Your task to perform on an android device: Open display settings Image 0: 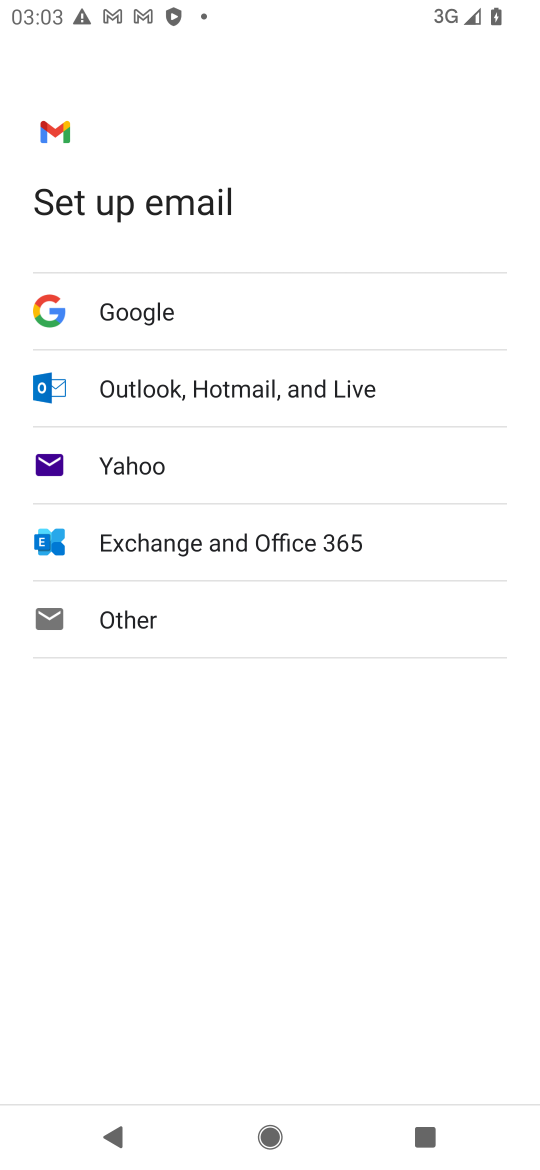
Step 0: press home button
Your task to perform on an android device: Open display settings Image 1: 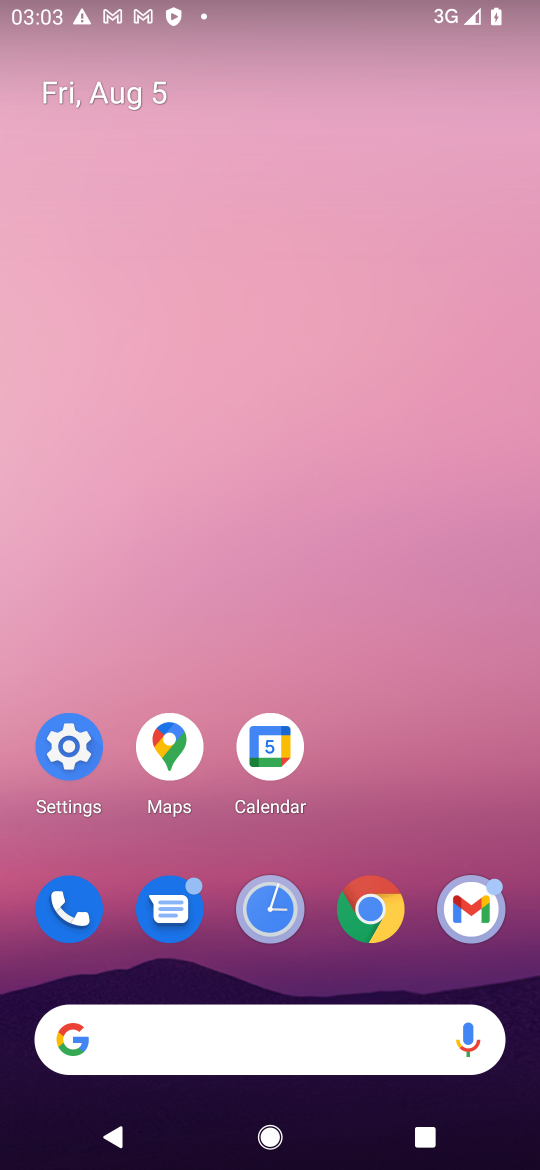
Step 1: click (72, 745)
Your task to perform on an android device: Open display settings Image 2: 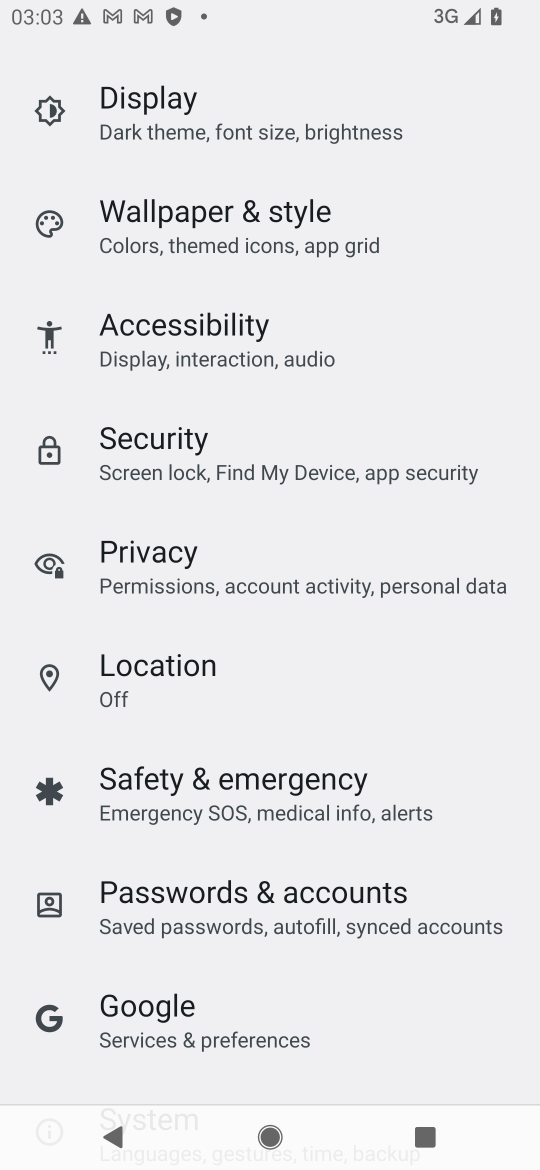
Step 2: click (158, 95)
Your task to perform on an android device: Open display settings Image 3: 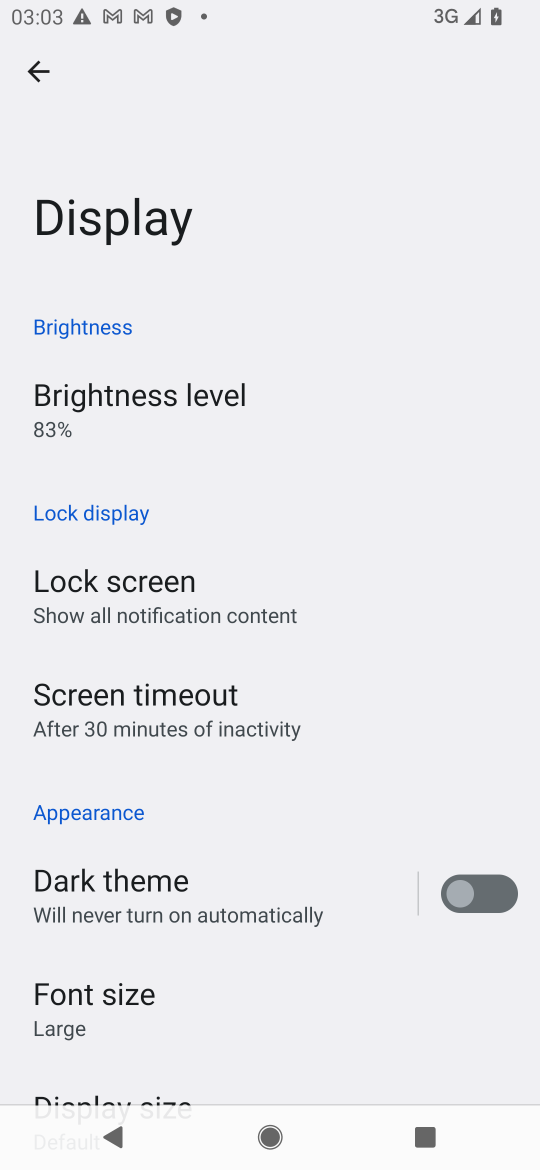
Step 3: task complete